Your task to perform on an android device: turn on javascript in the chrome app Image 0: 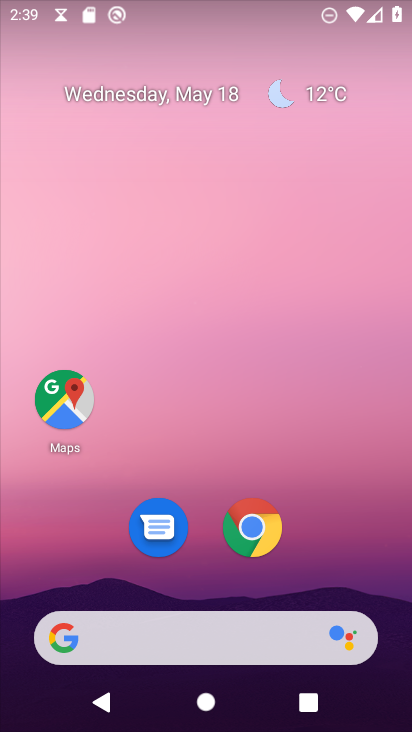
Step 0: click (258, 515)
Your task to perform on an android device: turn on javascript in the chrome app Image 1: 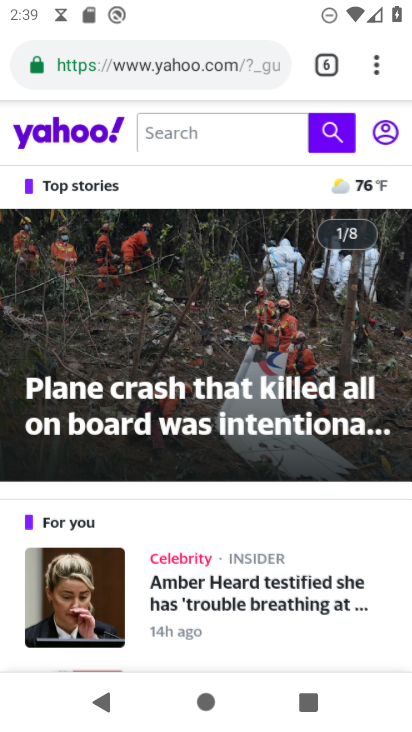
Step 1: click (370, 72)
Your task to perform on an android device: turn on javascript in the chrome app Image 2: 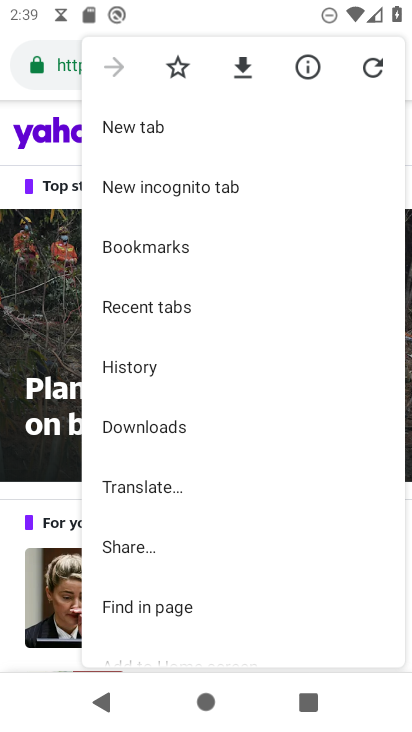
Step 2: drag from (277, 568) to (256, 193)
Your task to perform on an android device: turn on javascript in the chrome app Image 3: 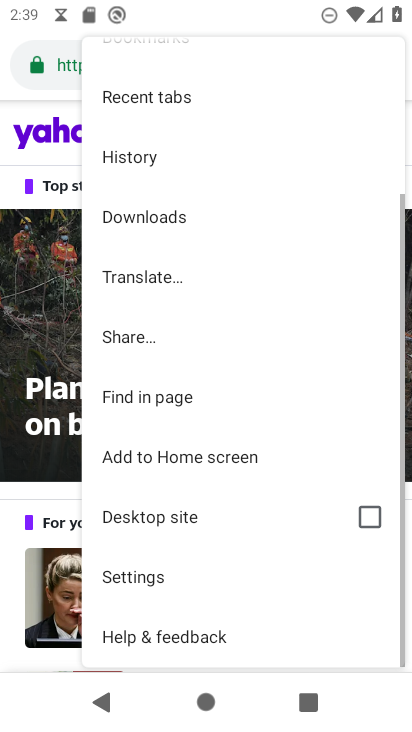
Step 3: click (188, 565)
Your task to perform on an android device: turn on javascript in the chrome app Image 4: 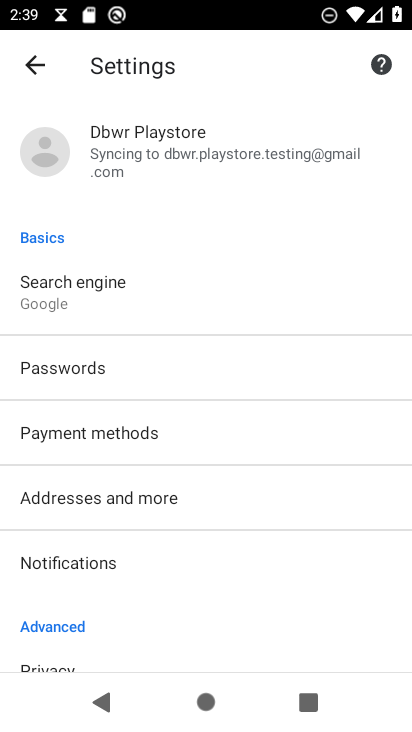
Step 4: drag from (184, 518) to (176, 213)
Your task to perform on an android device: turn on javascript in the chrome app Image 5: 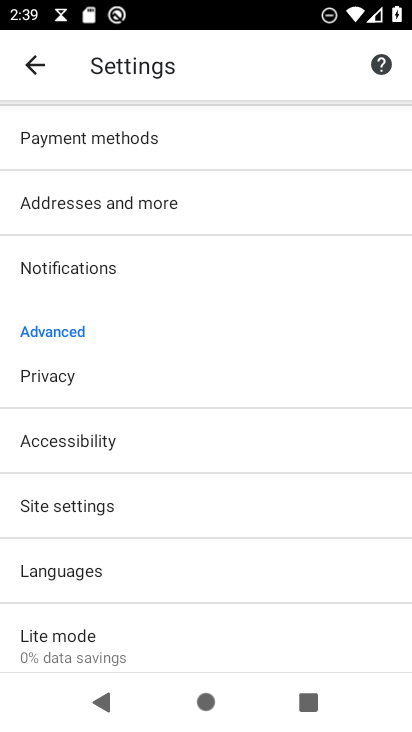
Step 5: click (112, 524)
Your task to perform on an android device: turn on javascript in the chrome app Image 6: 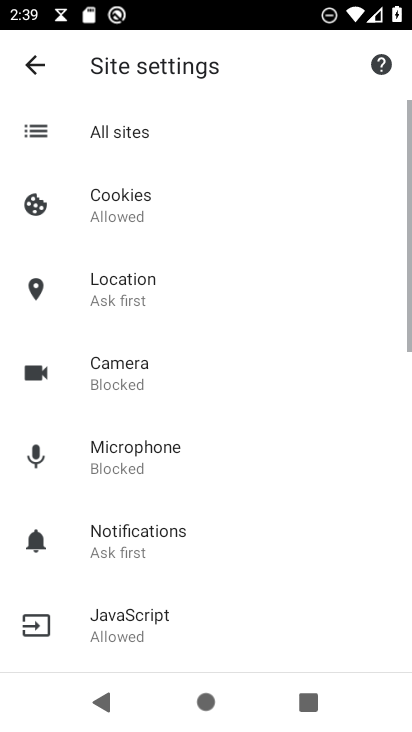
Step 6: drag from (168, 581) to (208, 336)
Your task to perform on an android device: turn on javascript in the chrome app Image 7: 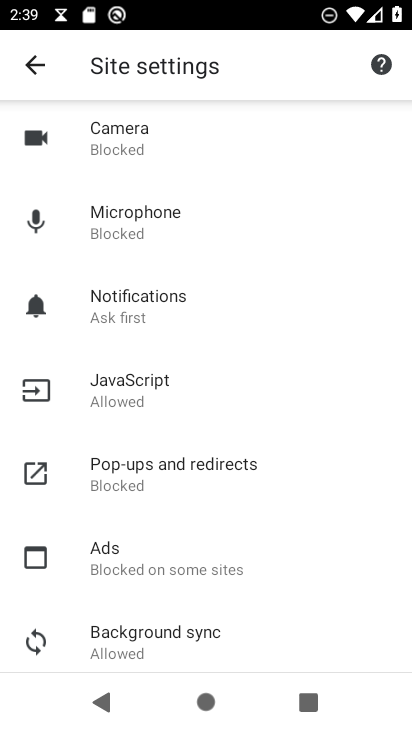
Step 7: click (160, 394)
Your task to perform on an android device: turn on javascript in the chrome app Image 8: 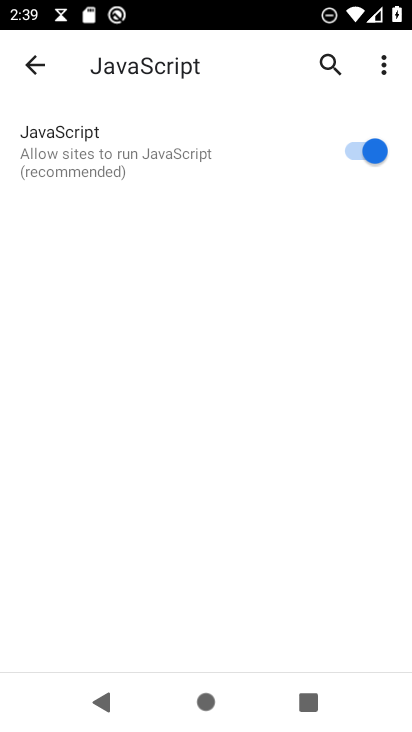
Step 8: task complete